Your task to perform on an android device: set an alarm Image 0: 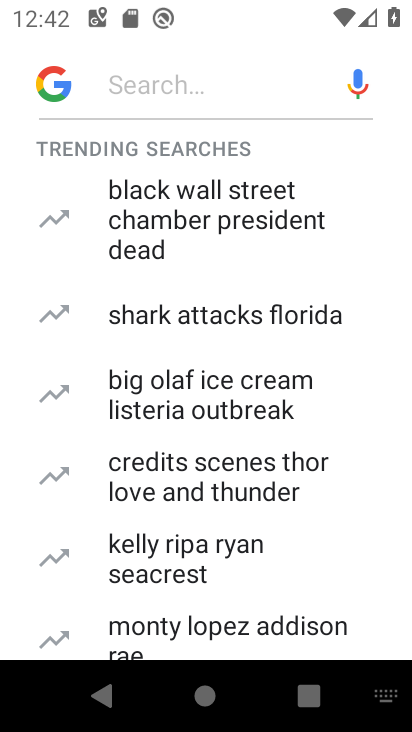
Step 0: press home button
Your task to perform on an android device: set an alarm Image 1: 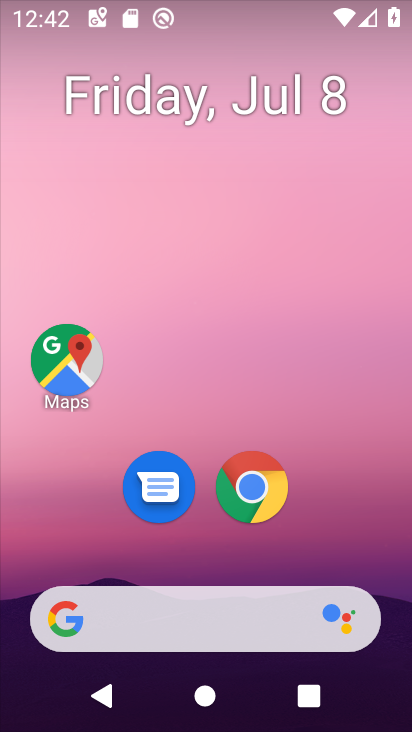
Step 1: drag from (363, 545) to (360, 83)
Your task to perform on an android device: set an alarm Image 2: 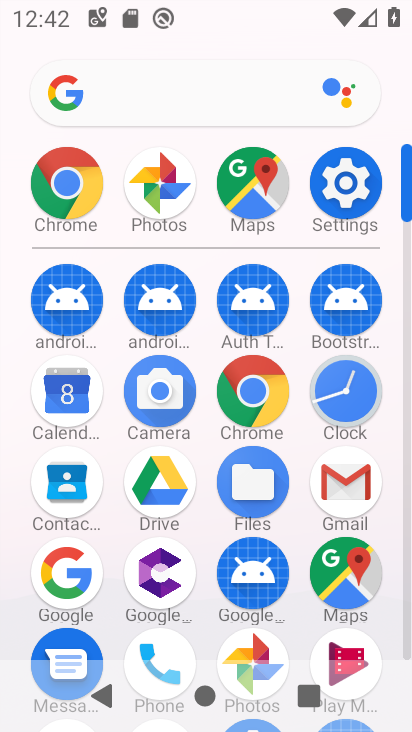
Step 2: click (337, 394)
Your task to perform on an android device: set an alarm Image 3: 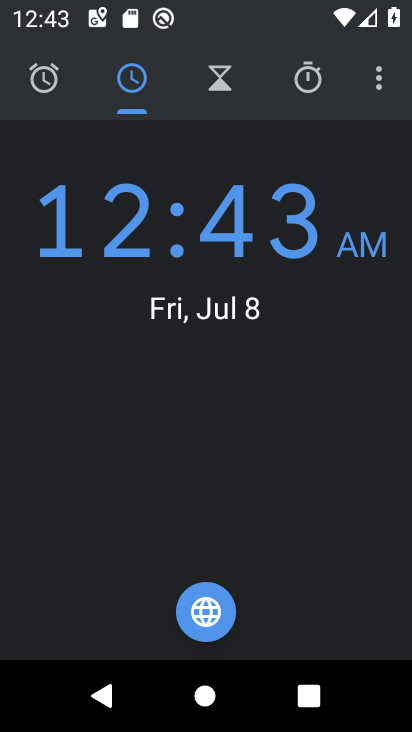
Step 3: click (46, 91)
Your task to perform on an android device: set an alarm Image 4: 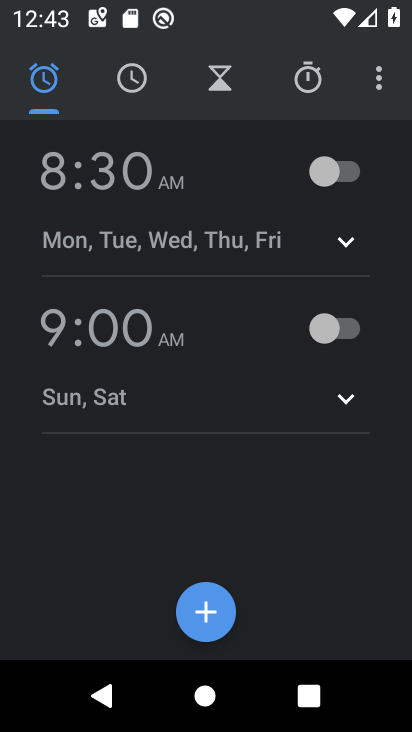
Step 4: click (214, 622)
Your task to perform on an android device: set an alarm Image 5: 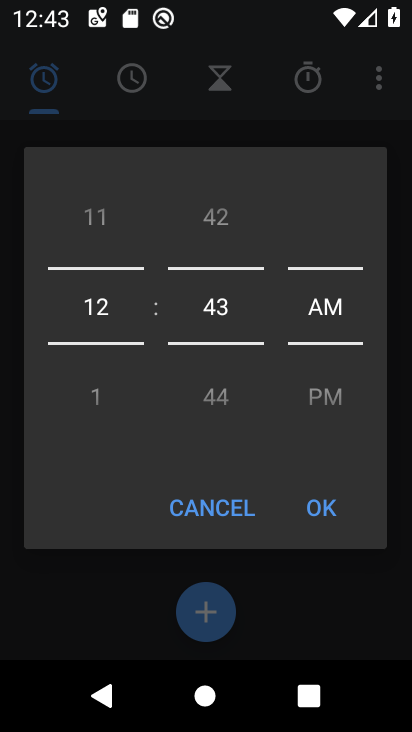
Step 5: click (320, 512)
Your task to perform on an android device: set an alarm Image 6: 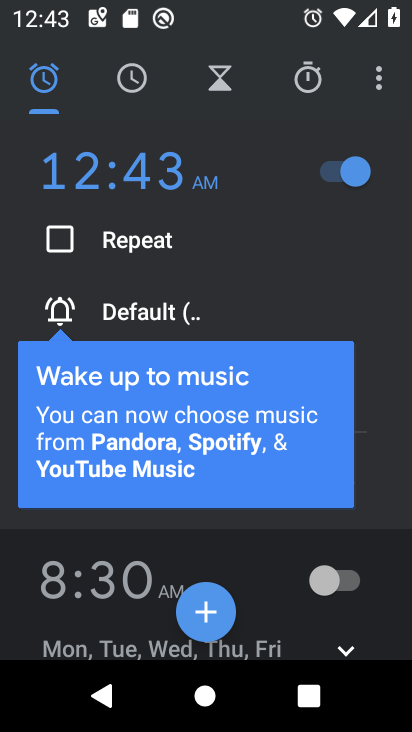
Step 6: task complete